Your task to perform on an android device: change the clock display to digital Image 0: 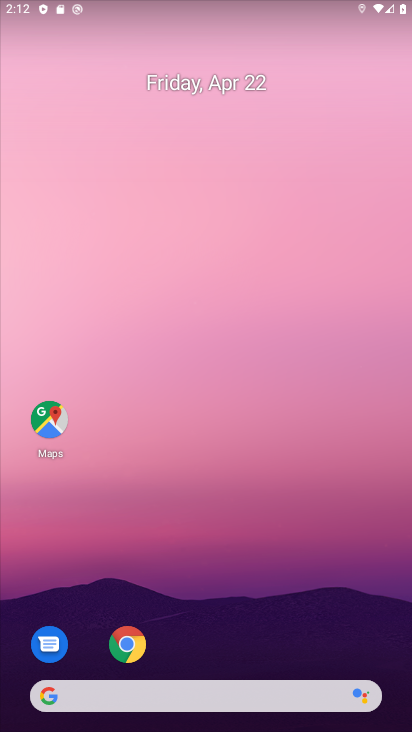
Step 0: drag from (274, 609) to (179, 161)
Your task to perform on an android device: change the clock display to digital Image 1: 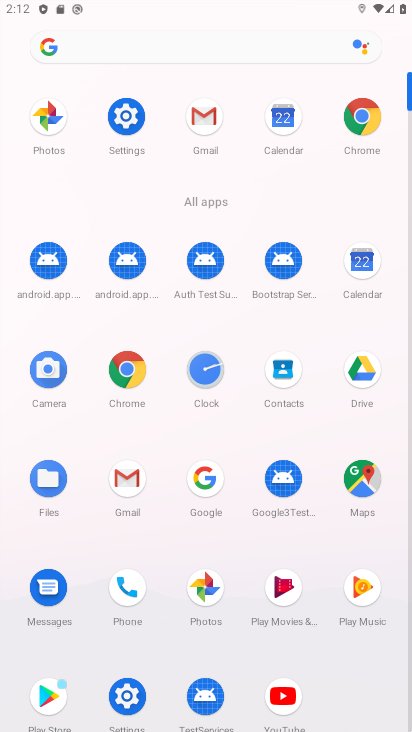
Step 1: click (205, 378)
Your task to perform on an android device: change the clock display to digital Image 2: 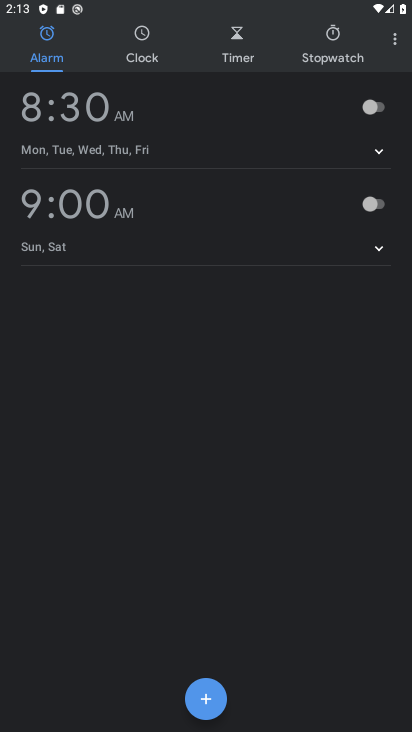
Step 2: click (399, 46)
Your task to perform on an android device: change the clock display to digital Image 3: 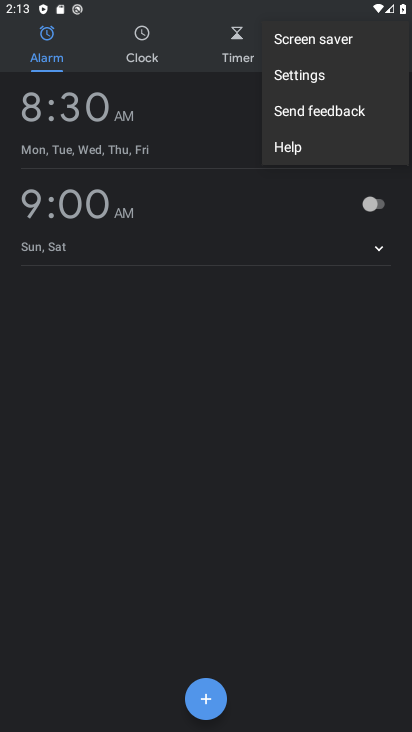
Step 3: click (316, 74)
Your task to perform on an android device: change the clock display to digital Image 4: 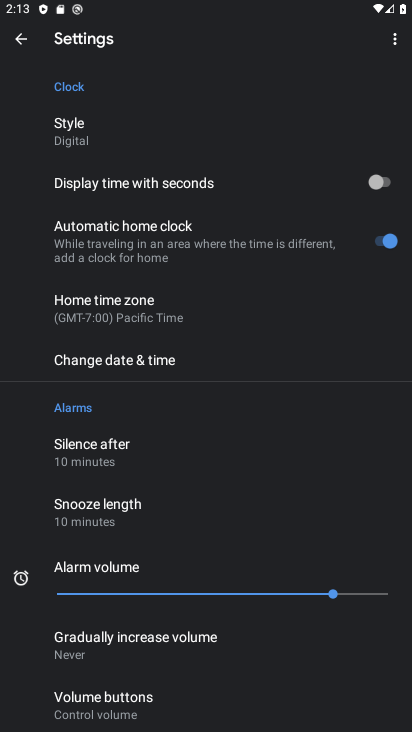
Step 4: click (67, 139)
Your task to perform on an android device: change the clock display to digital Image 5: 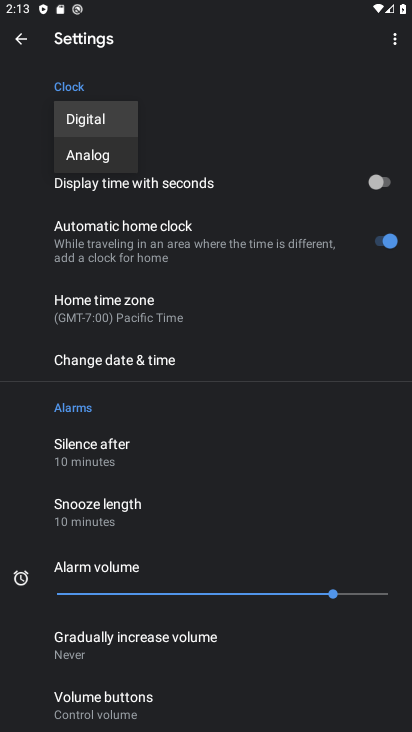
Step 5: click (92, 159)
Your task to perform on an android device: change the clock display to digital Image 6: 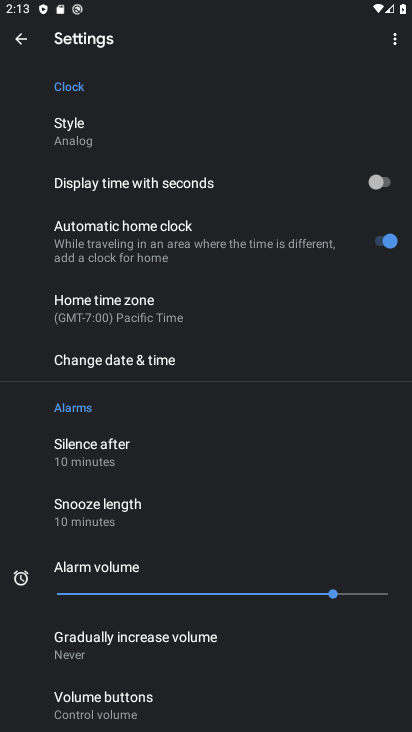
Step 6: click (75, 139)
Your task to perform on an android device: change the clock display to digital Image 7: 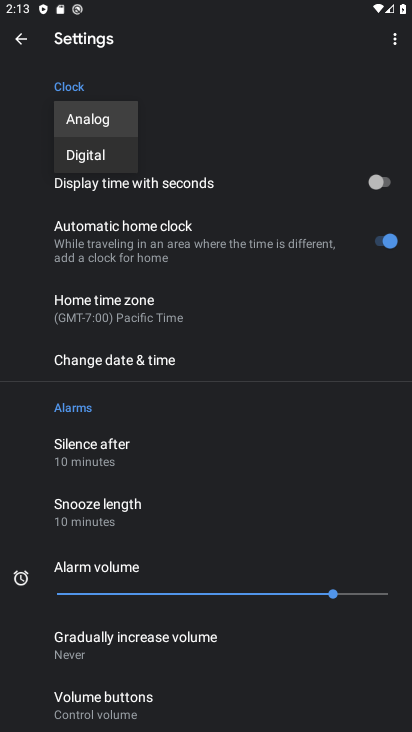
Step 7: click (83, 157)
Your task to perform on an android device: change the clock display to digital Image 8: 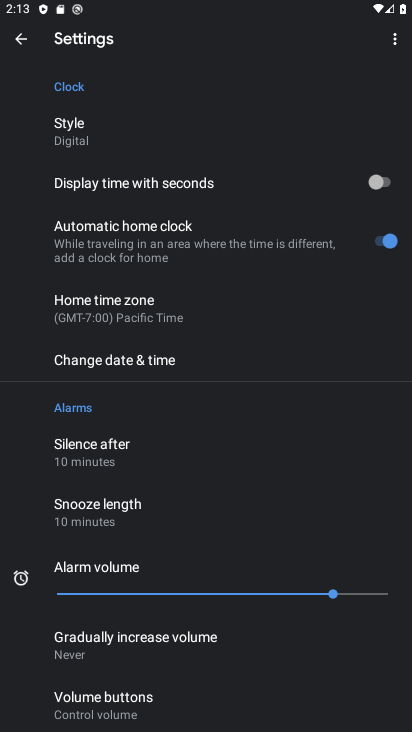
Step 8: task complete